Your task to perform on an android device: turn on notifications settings in the gmail app Image 0: 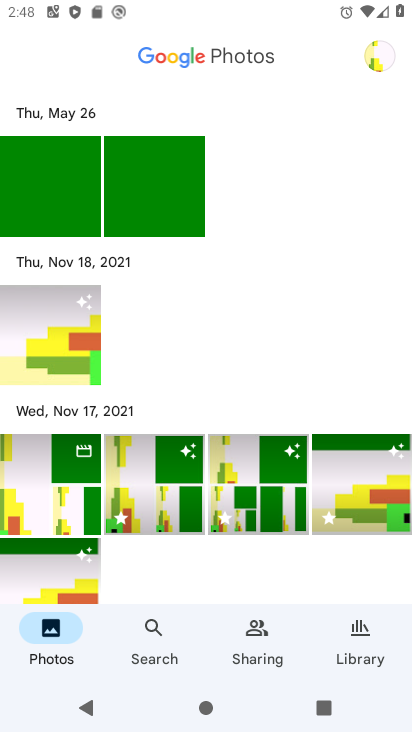
Step 0: press home button
Your task to perform on an android device: turn on notifications settings in the gmail app Image 1: 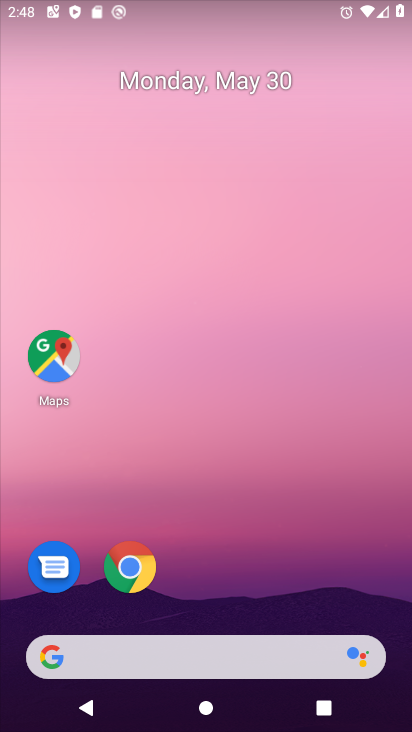
Step 1: drag from (249, 559) to (308, 15)
Your task to perform on an android device: turn on notifications settings in the gmail app Image 2: 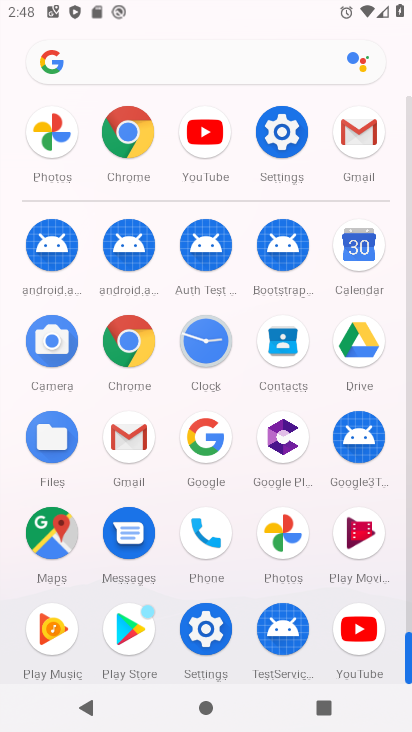
Step 2: click (141, 427)
Your task to perform on an android device: turn on notifications settings in the gmail app Image 3: 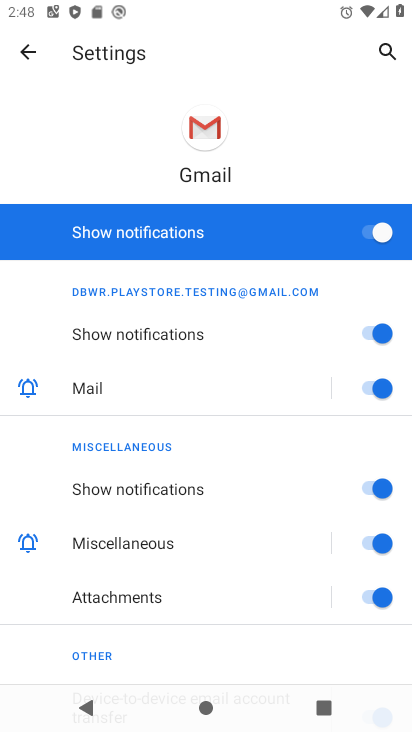
Step 3: task complete